Your task to perform on an android device: Open Maps and search for coffee Image 0: 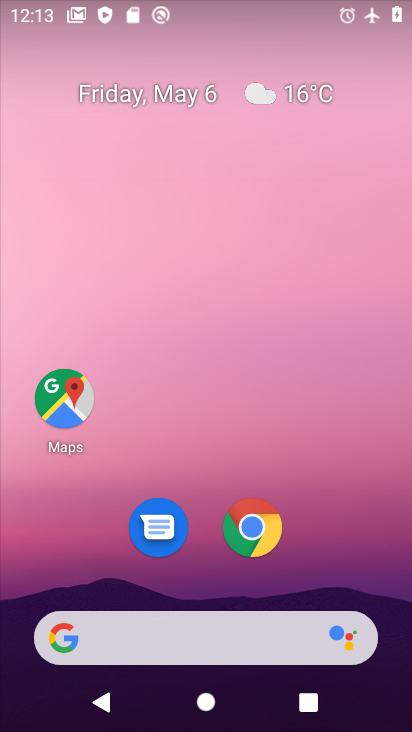
Step 0: click (77, 412)
Your task to perform on an android device: Open Maps and search for coffee Image 1: 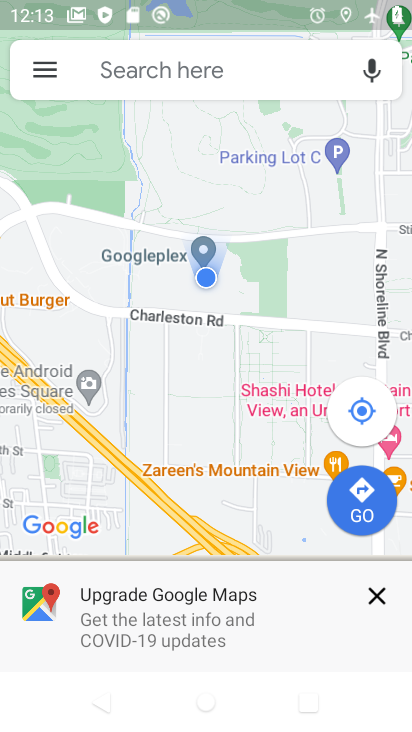
Step 1: click (222, 66)
Your task to perform on an android device: Open Maps and search for coffee Image 2: 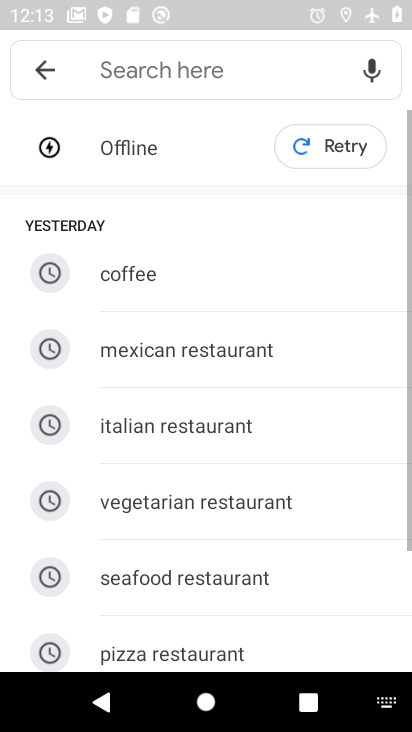
Step 2: click (116, 273)
Your task to perform on an android device: Open Maps and search for coffee Image 3: 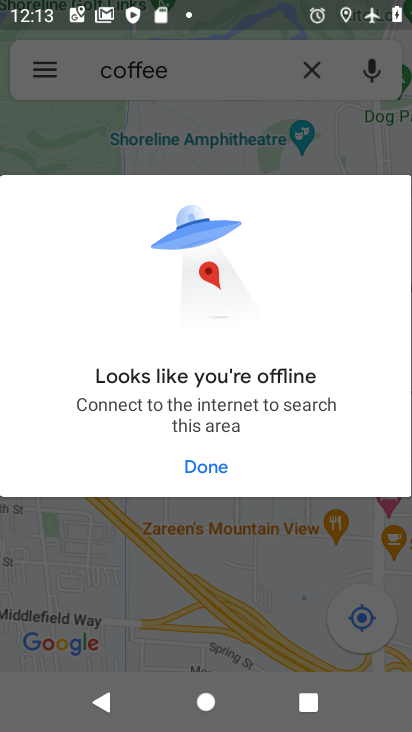
Step 3: click (197, 466)
Your task to perform on an android device: Open Maps and search for coffee Image 4: 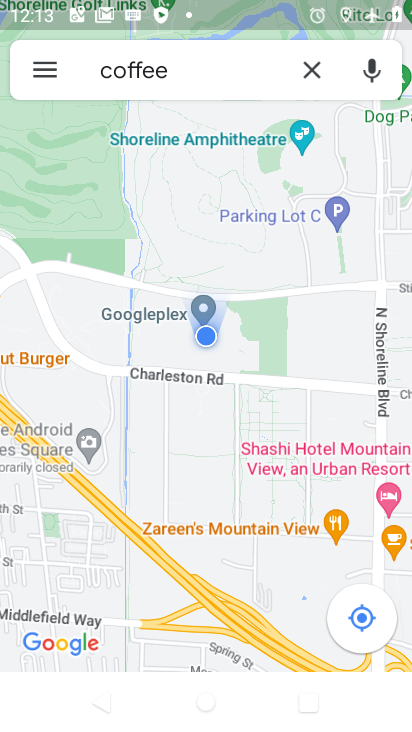
Step 4: task complete